Your task to perform on an android device: What's the weather today? Image 0: 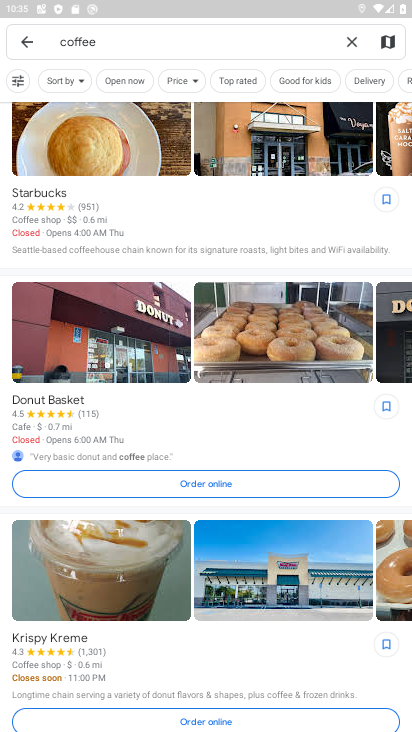
Step 0: press home button
Your task to perform on an android device: What's the weather today? Image 1: 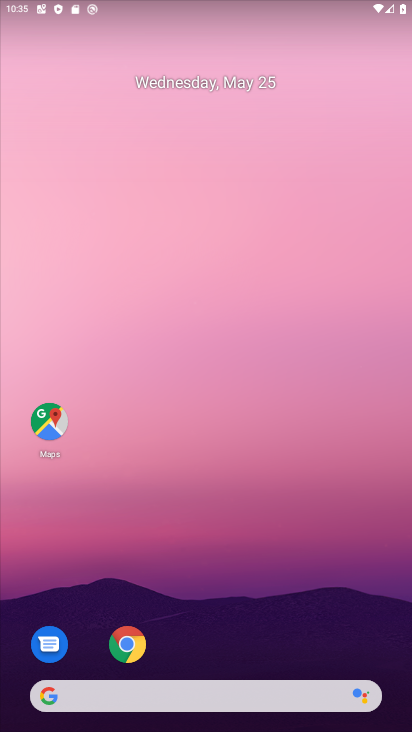
Step 1: click (166, 698)
Your task to perform on an android device: What's the weather today? Image 2: 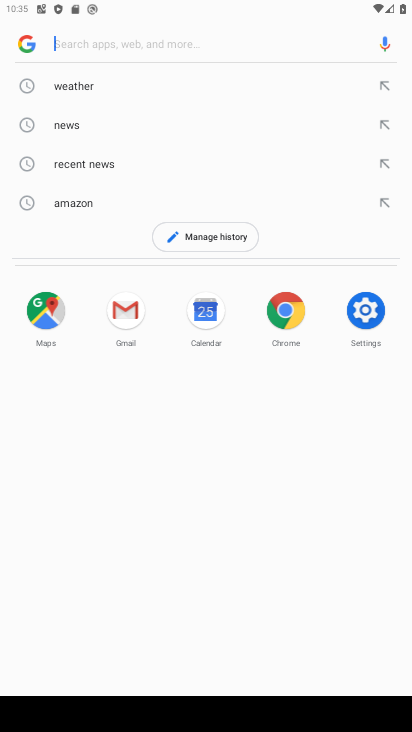
Step 2: click (68, 82)
Your task to perform on an android device: What's the weather today? Image 3: 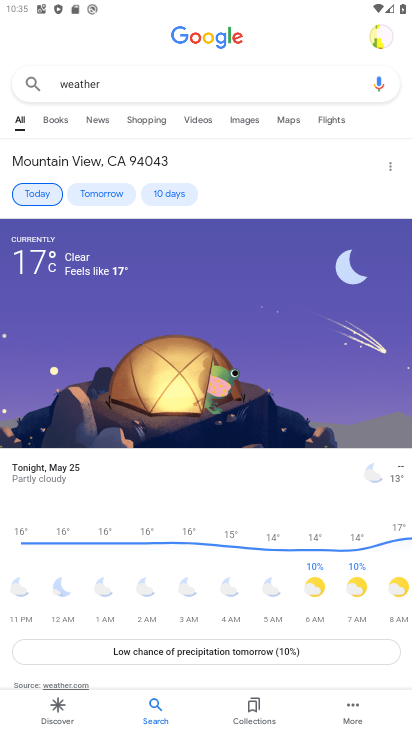
Step 3: task complete